Your task to perform on an android device: open a bookmark in the chrome app Image 0: 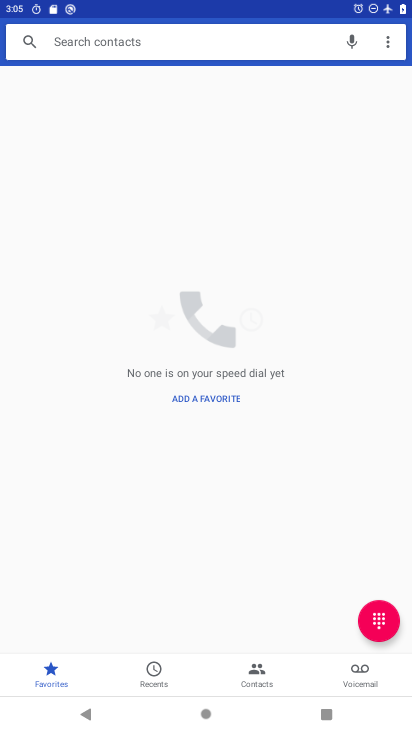
Step 0: press home button
Your task to perform on an android device: open a bookmark in the chrome app Image 1: 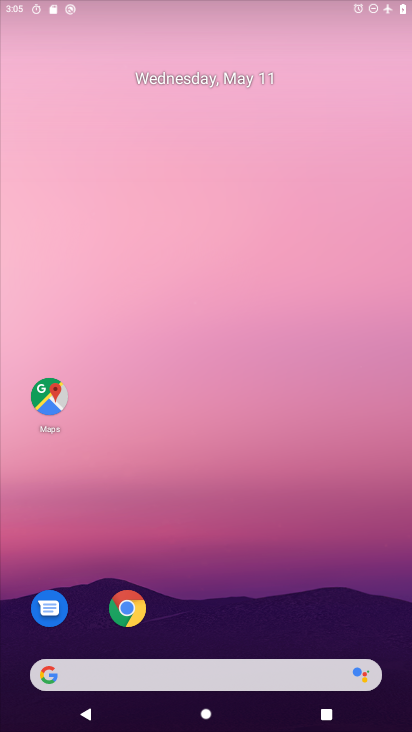
Step 1: drag from (229, 616) to (294, 84)
Your task to perform on an android device: open a bookmark in the chrome app Image 2: 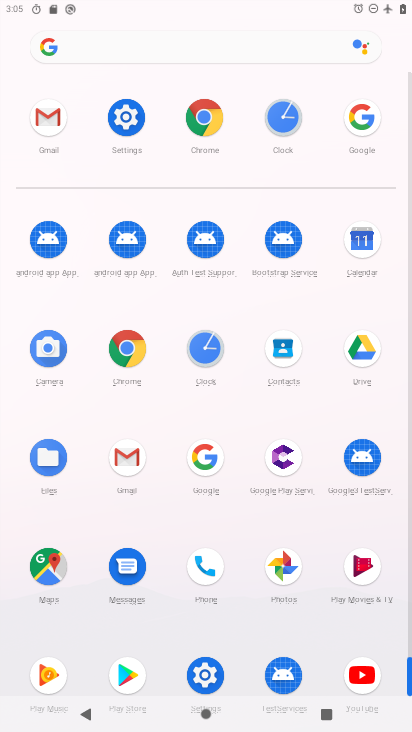
Step 2: click (207, 134)
Your task to perform on an android device: open a bookmark in the chrome app Image 3: 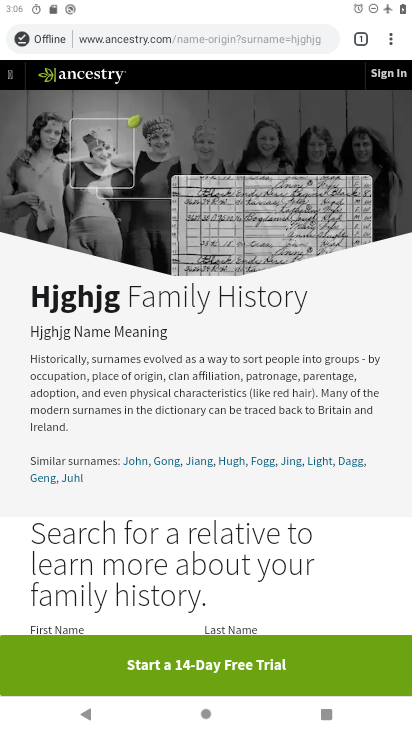
Step 3: click (395, 43)
Your task to perform on an android device: open a bookmark in the chrome app Image 4: 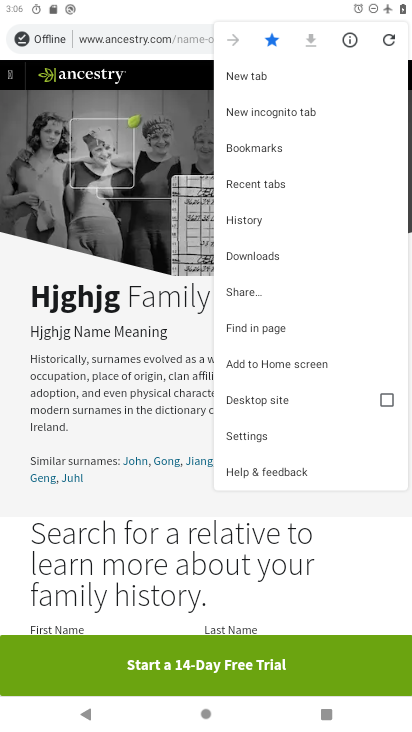
Step 4: click (277, 152)
Your task to perform on an android device: open a bookmark in the chrome app Image 5: 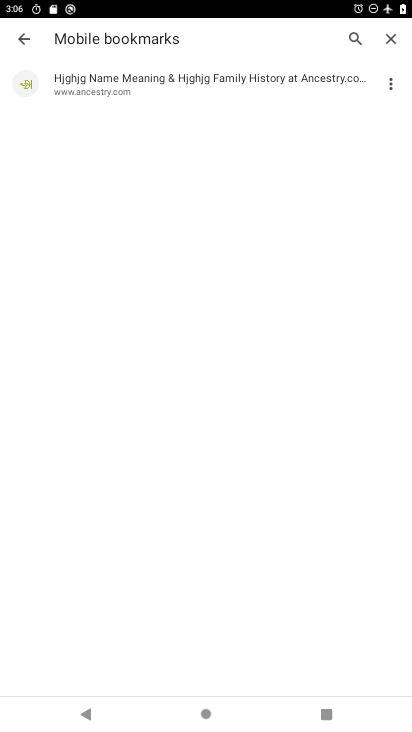
Step 5: click (319, 102)
Your task to perform on an android device: open a bookmark in the chrome app Image 6: 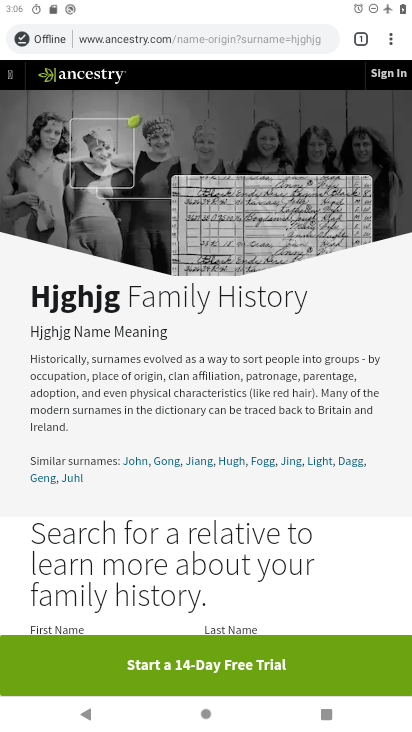
Step 6: task complete